Your task to perform on an android device: turn off notifications settings in the gmail app Image 0: 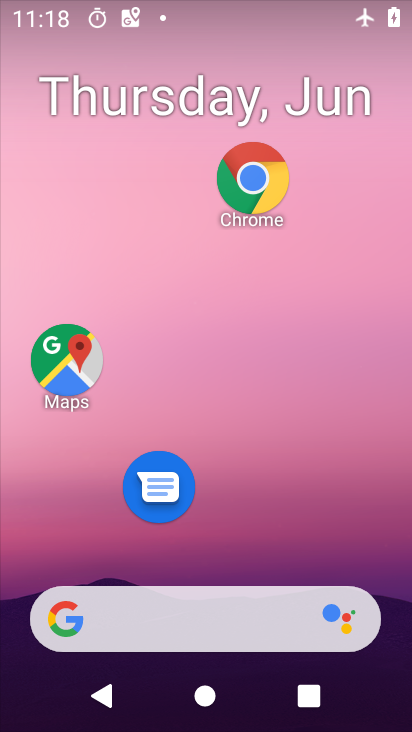
Step 0: drag from (226, 727) to (226, 121)
Your task to perform on an android device: turn off notifications settings in the gmail app Image 1: 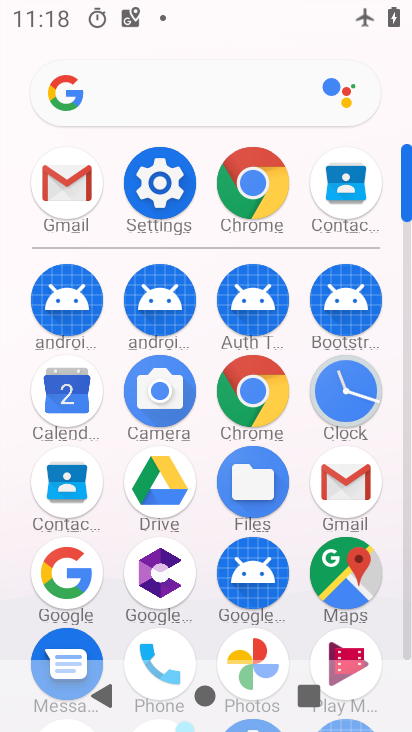
Step 1: click (325, 483)
Your task to perform on an android device: turn off notifications settings in the gmail app Image 2: 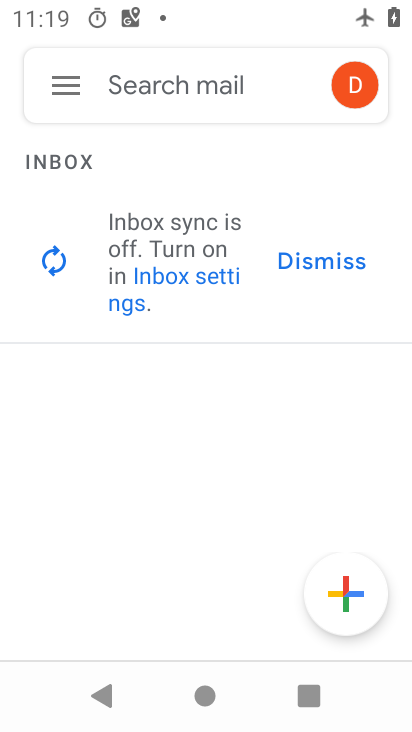
Step 2: click (56, 89)
Your task to perform on an android device: turn off notifications settings in the gmail app Image 3: 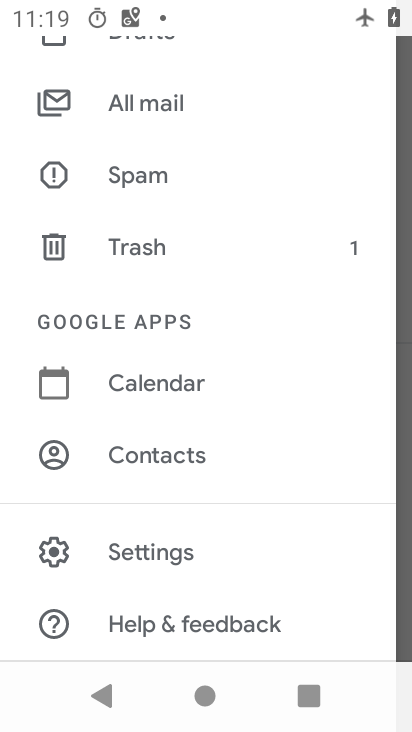
Step 3: click (152, 551)
Your task to perform on an android device: turn off notifications settings in the gmail app Image 4: 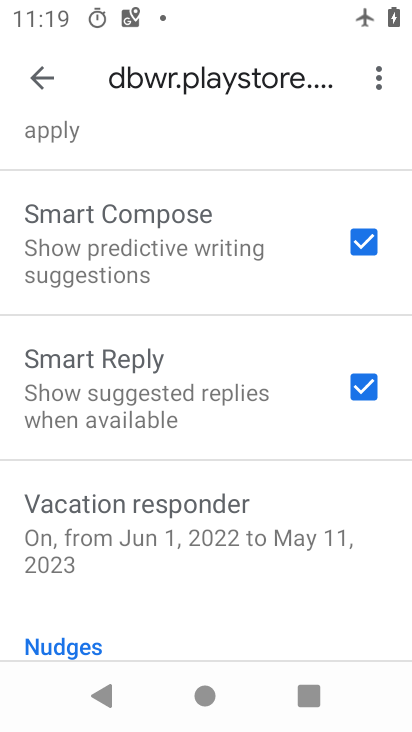
Step 4: task complete